Your task to perform on an android device: change the clock display to analog Image 0: 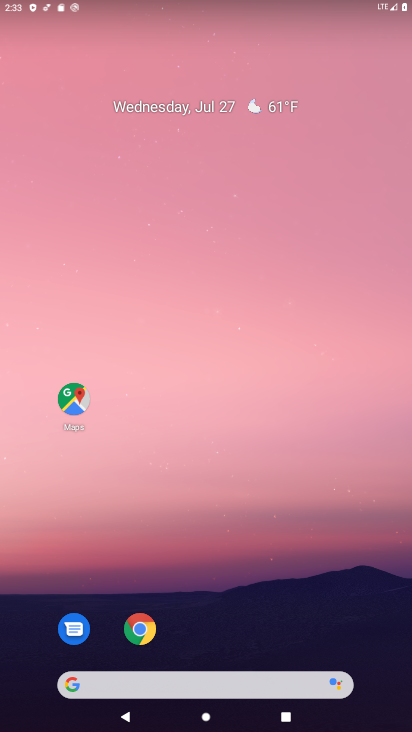
Step 0: drag from (180, 680) to (209, 199)
Your task to perform on an android device: change the clock display to analog Image 1: 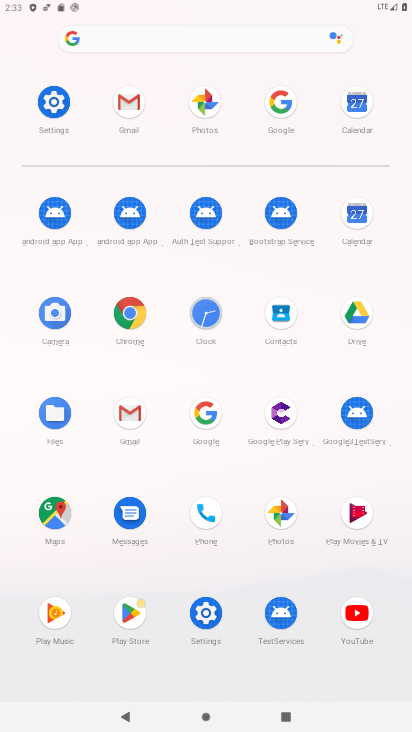
Step 1: click (206, 312)
Your task to perform on an android device: change the clock display to analog Image 2: 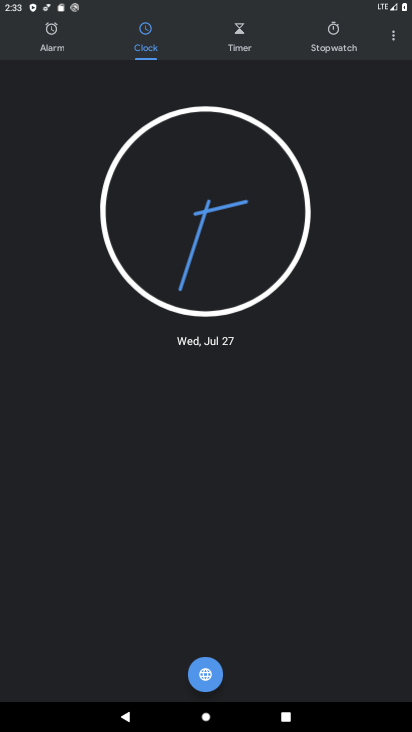
Step 2: click (394, 37)
Your task to perform on an android device: change the clock display to analog Image 3: 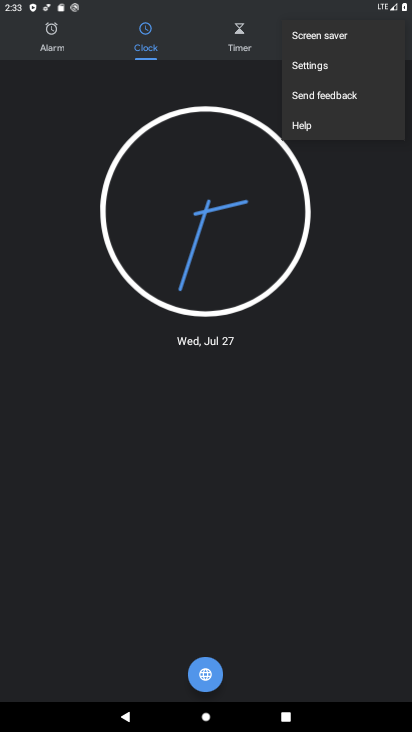
Step 3: click (325, 68)
Your task to perform on an android device: change the clock display to analog Image 4: 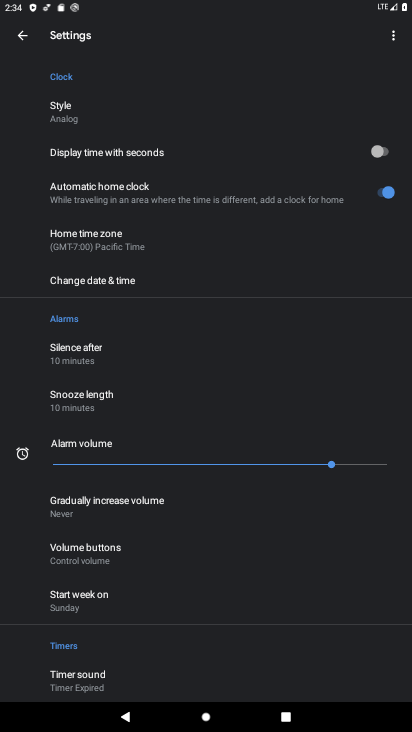
Step 4: click (76, 116)
Your task to perform on an android device: change the clock display to analog Image 5: 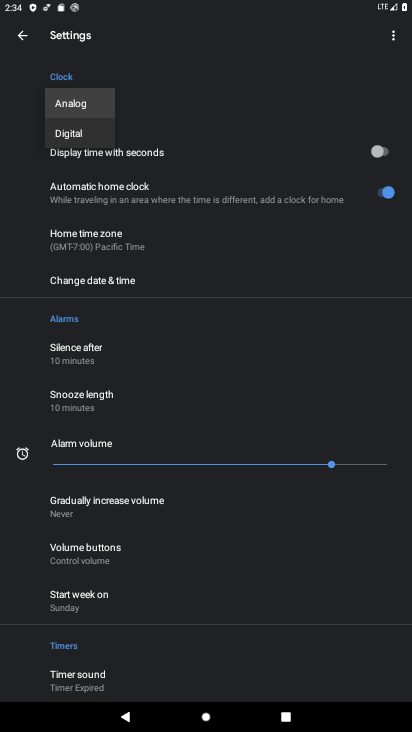
Step 5: click (84, 105)
Your task to perform on an android device: change the clock display to analog Image 6: 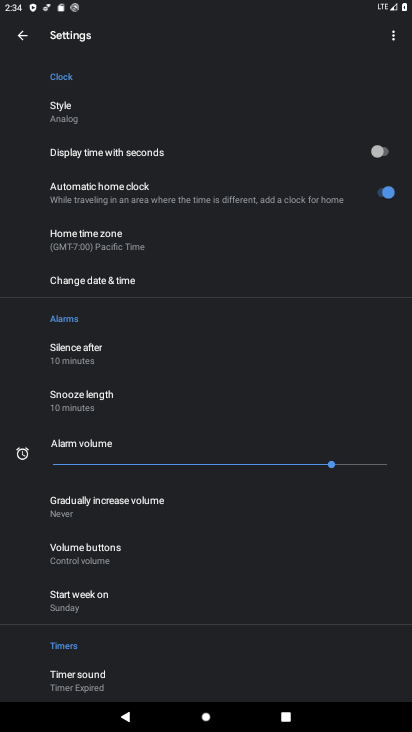
Step 6: task complete